Your task to perform on an android device: snooze an email in the gmail app Image 0: 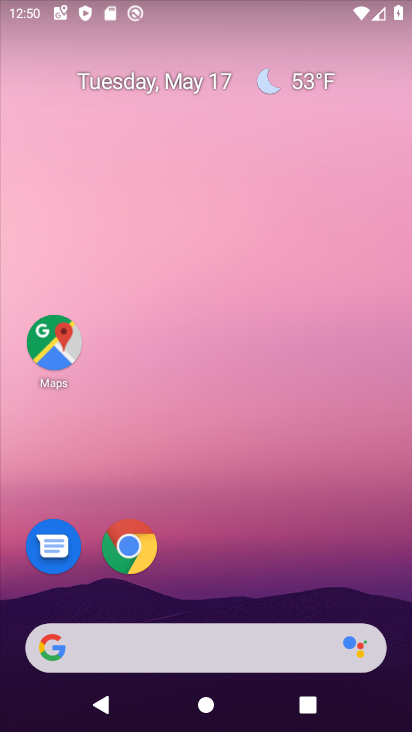
Step 0: drag from (209, 576) to (187, 215)
Your task to perform on an android device: snooze an email in the gmail app Image 1: 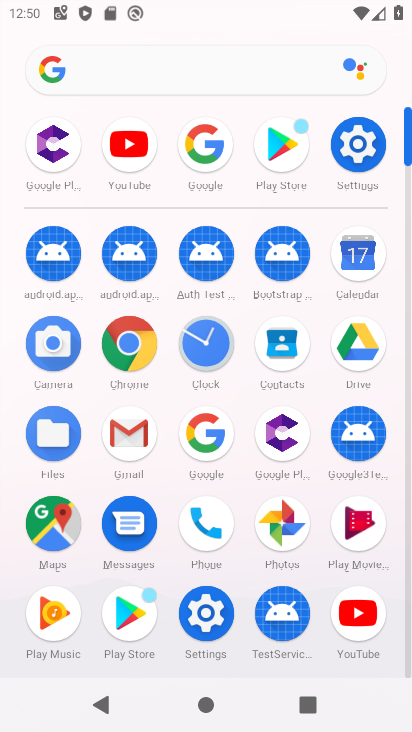
Step 1: click (131, 455)
Your task to perform on an android device: snooze an email in the gmail app Image 2: 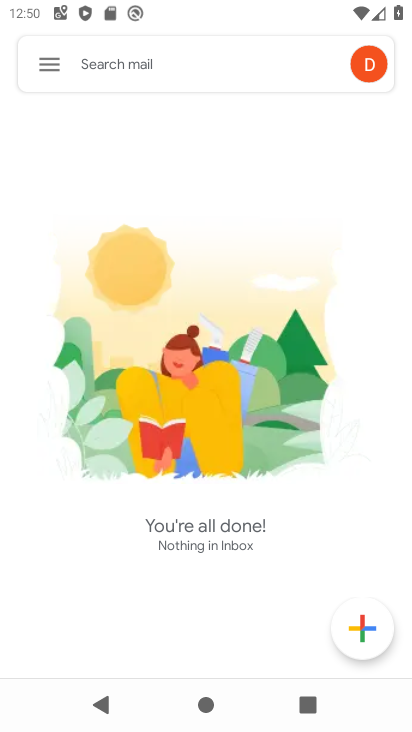
Step 2: click (54, 66)
Your task to perform on an android device: snooze an email in the gmail app Image 3: 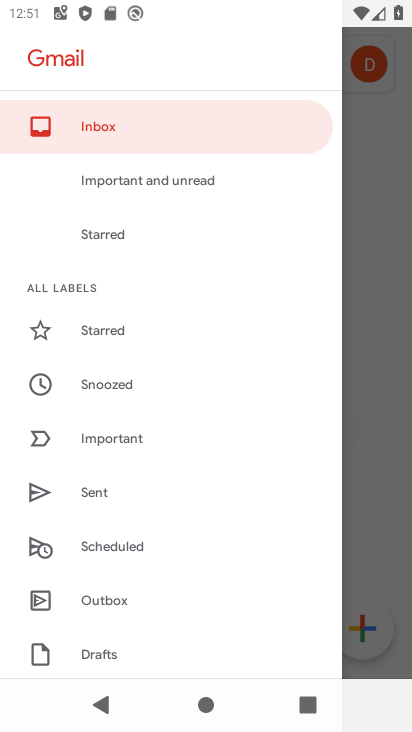
Step 3: click (157, 127)
Your task to perform on an android device: snooze an email in the gmail app Image 4: 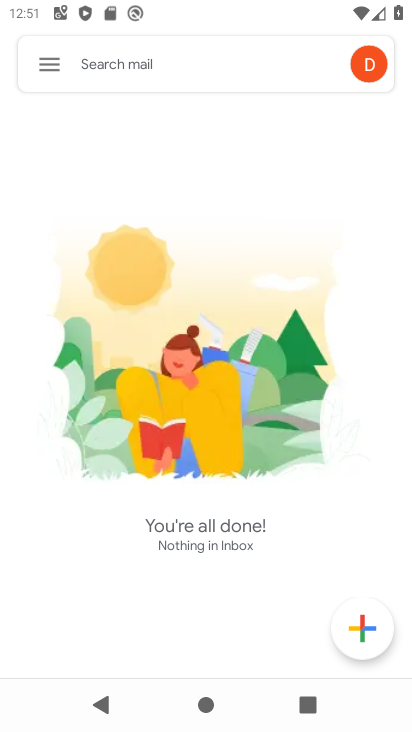
Step 4: task complete